Your task to perform on an android device: change the clock display to digital Image 0: 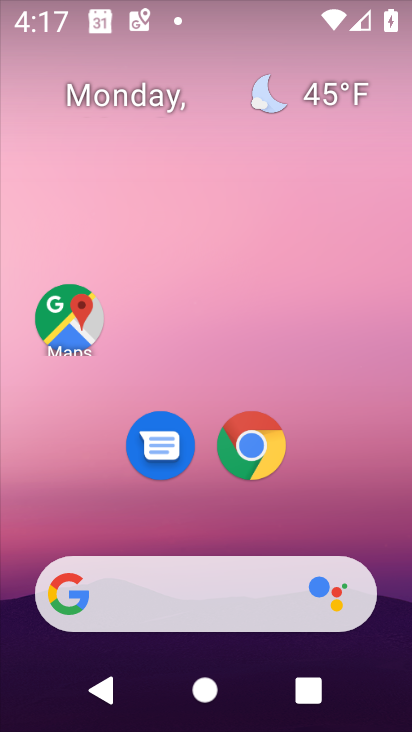
Step 0: drag from (287, 534) to (294, 80)
Your task to perform on an android device: change the clock display to digital Image 1: 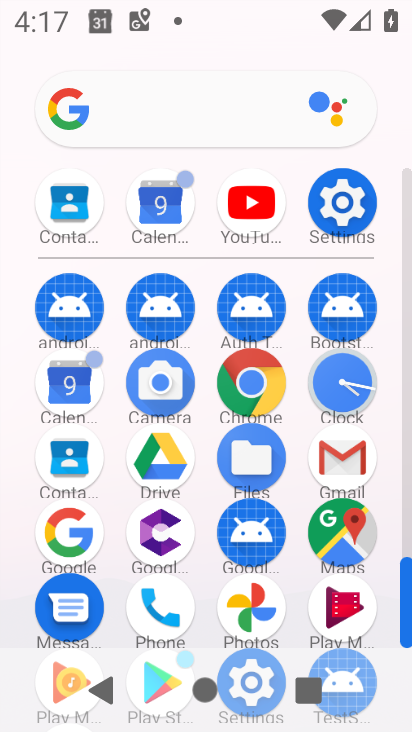
Step 1: click (340, 390)
Your task to perform on an android device: change the clock display to digital Image 2: 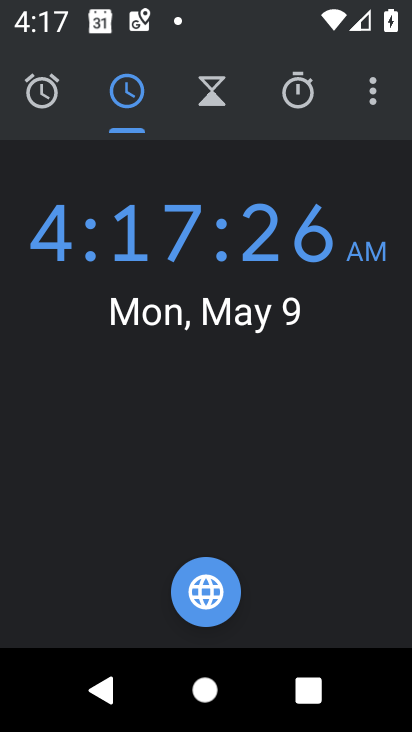
Step 2: click (374, 96)
Your task to perform on an android device: change the clock display to digital Image 3: 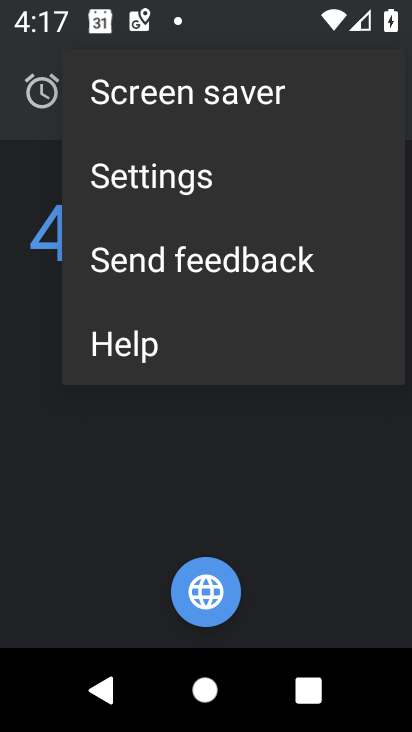
Step 3: click (246, 171)
Your task to perform on an android device: change the clock display to digital Image 4: 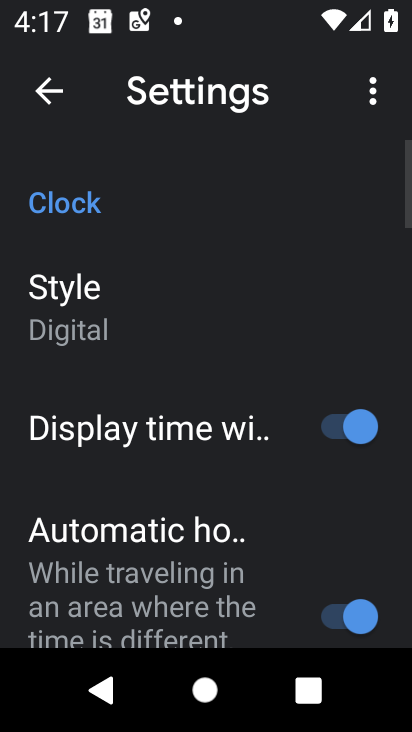
Step 4: click (133, 326)
Your task to perform on an android device: change the clock display to digital Image 5: 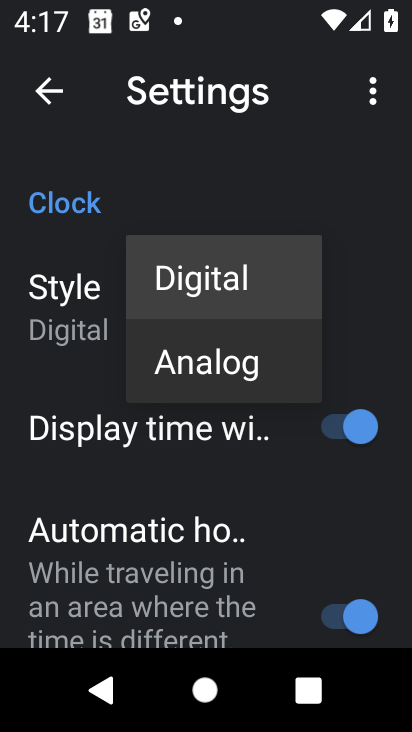
Step 5: click (187, 264)
Your task to perform on an android device: change the clock display to digital Image 6: 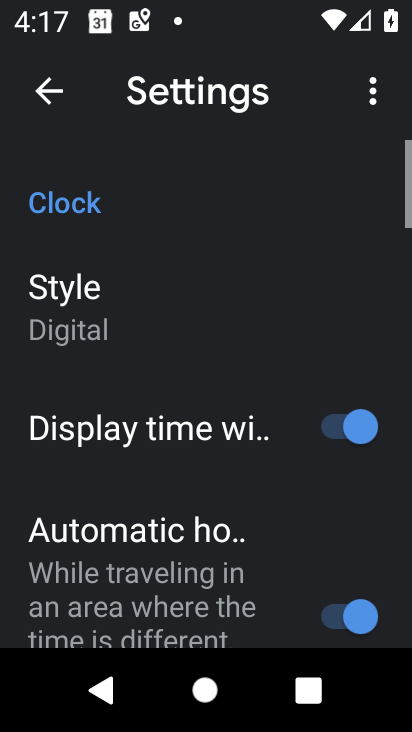
Step 6: task complete